Your task to perform on an android device: Go to CNN.com Image 0: 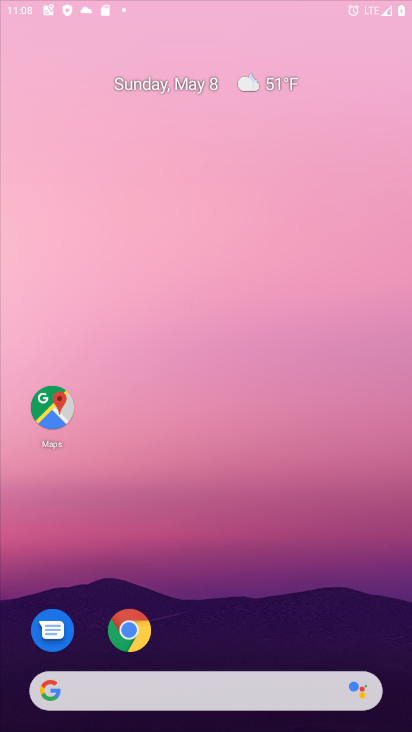
Step 0: click (271, 19)
Your task to perform on an android device: Go to CNN.com Image 1: 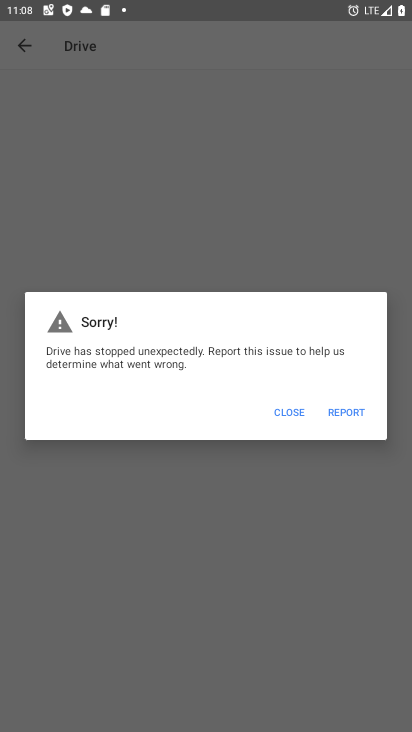
Step 1: press home button
Your task to perform on an android device: Go to CNN.com Image 2: 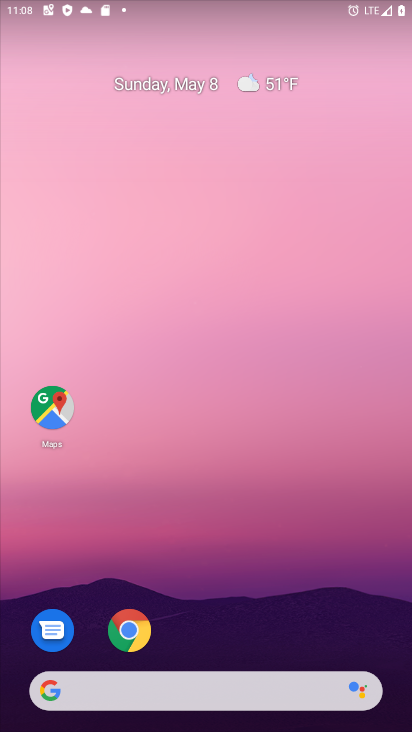
Step 2: drag from (380, 599) to (261, 16)
Your task to perform on an android device: Go to CNN.com Image 3: 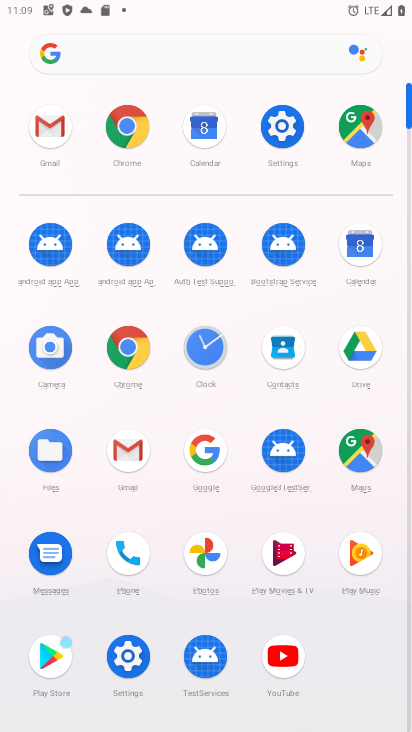
Step 3: click (140, 349)
Your task to perform on an android device: Go to CNN.com Image 4: 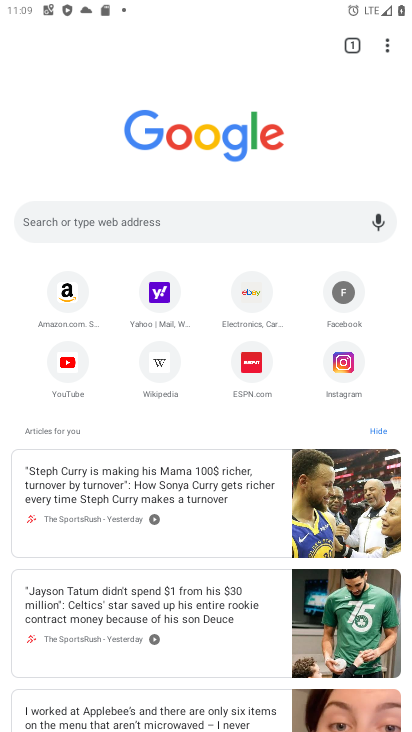
Step 4: click (203, 228)
Your task to perform on an android device: Go to CNN.com Image 5: 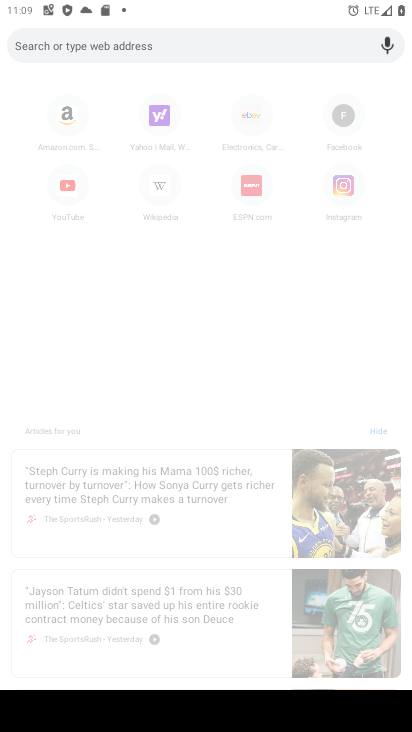
Step 5: type "cnn.com"
Your task to perform on an android device: Go to CNN.com Image 6: 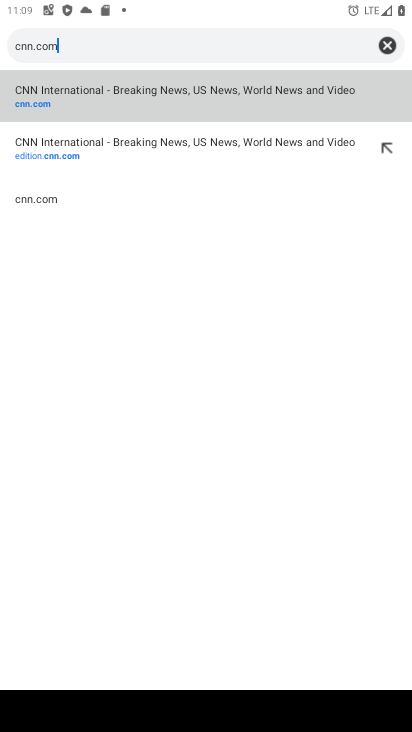
Step 6: click (262, 115)
Your task to perform on an android device: Go to CNN.com Image 7: 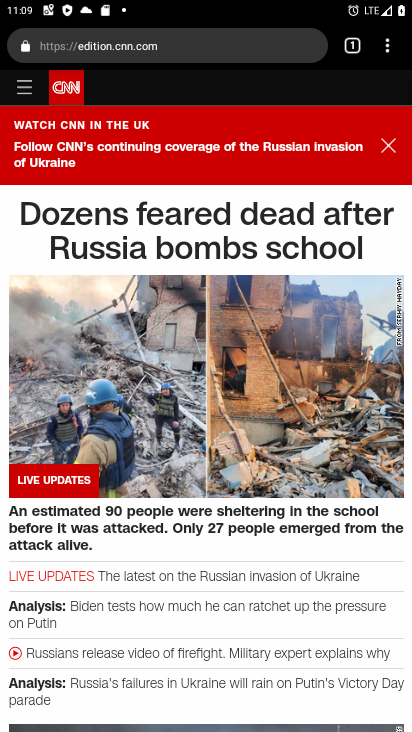
Step 7: task complete